Your task to perform on an android device: Open Google Chrome and open the bookmarks view Image 0: 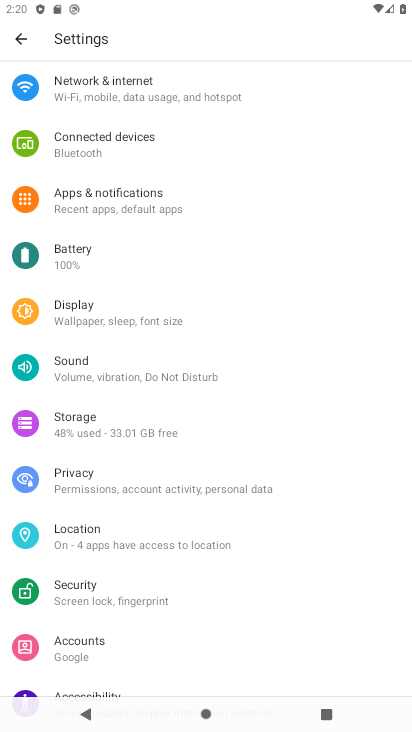
Step 0: press home button
Your task to perform on an android device: Open Google Chrome and open the bookmarks view Image 1: 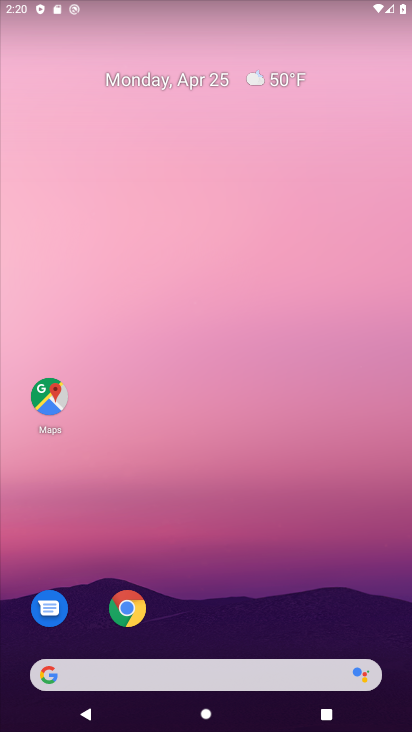
Step 1: click (115, 611)
Your task to perform on an android device: Open Google Chrome and open the bookmarks view Image 2: 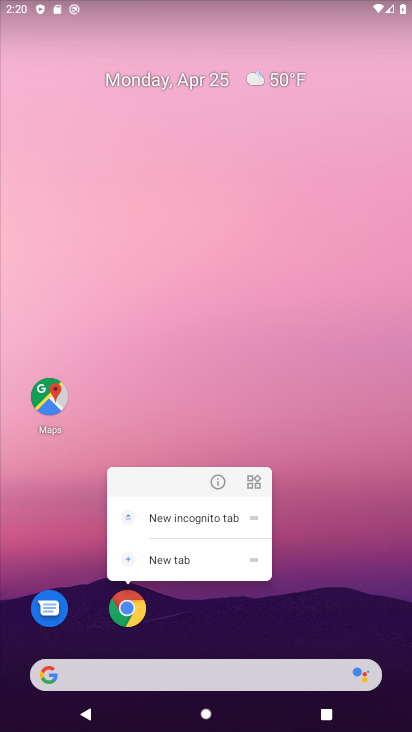
Step 2: click (115, 611)
Your task to perform on an android device: Open Google Chrome and open the bookmarks view Image 3: 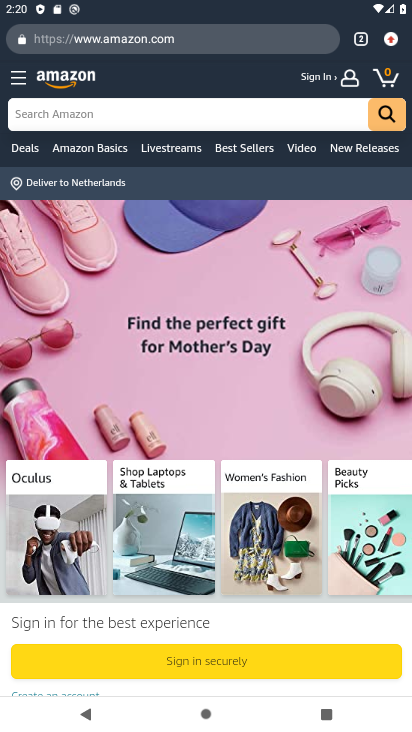
Step 3: click (394, 41)
Your task to perform on an android device: Open Google Chrome and open the bookmarks view Image 4: 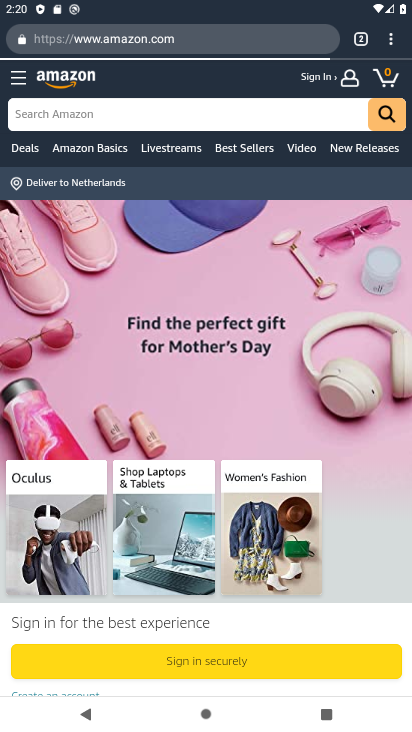
Step 4: task complete